Your task to perform on an android device: change notification settings in the gmail app Image 0: 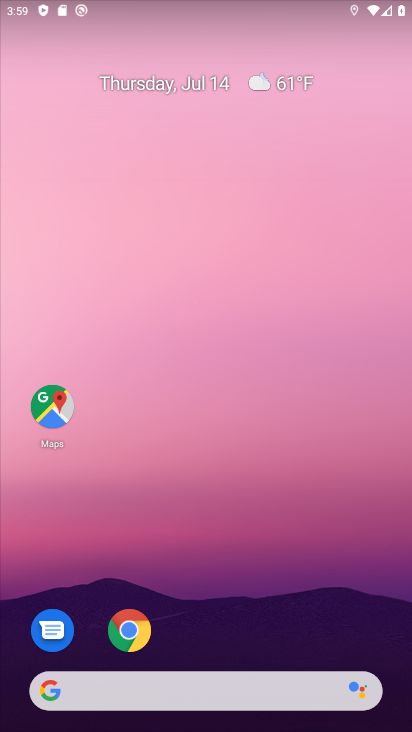
Step 0: drag from (294, 628) to (234, 129)
Your task to perform on an android device: change notification settings in the gmail app Image 1: 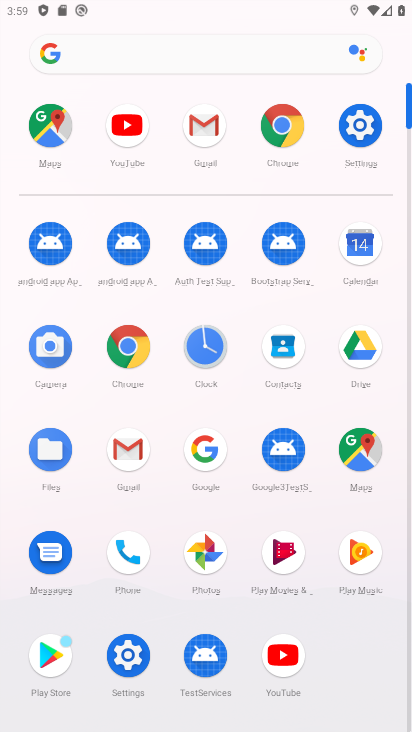
Step 1: click (209, 131)
Your task to perform on an android device: change notification settings in the gmail app Image 2: 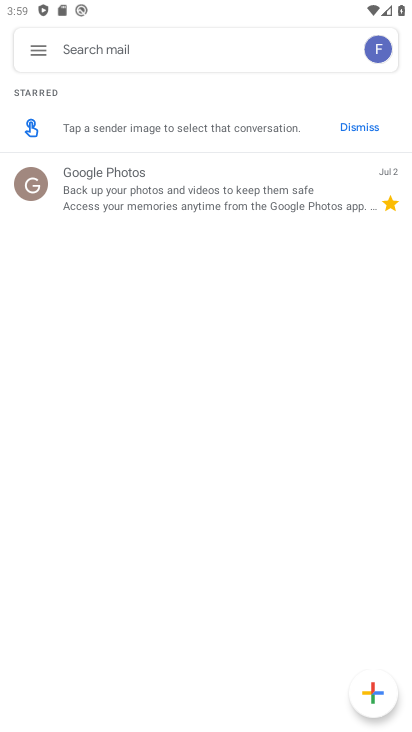
Step 2: click (36, 38)
Your task to perform on an android device: change notification settings in the gmail app Image 3: 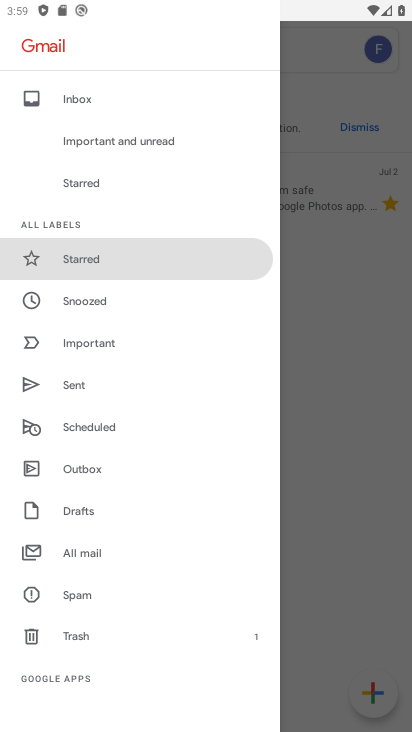
Step 3: drag from (140, 649) to (83, 233)
Your task to perform on an android device: change notification settings in the gmail app Image 4: 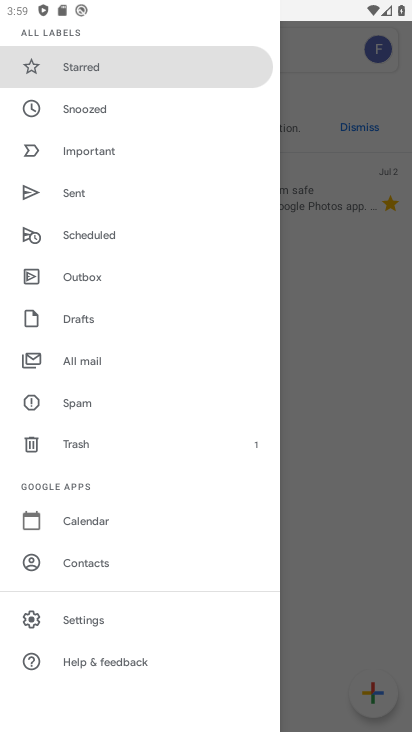
Step 4: click (97, 626)
Your task to perform on an android device: change notification settings in the gmail app Image 5: 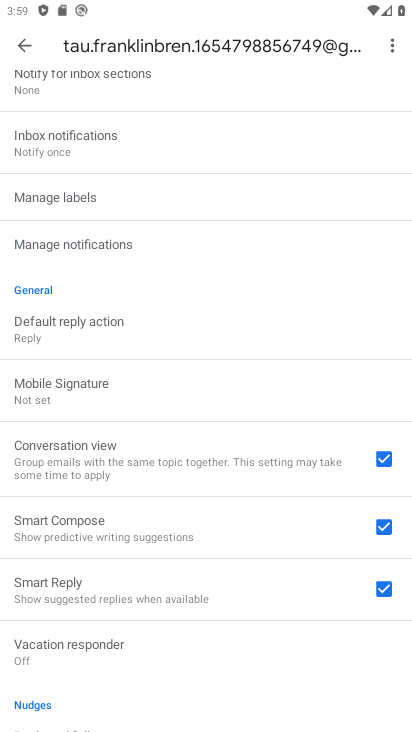
Step 5: click (168, 242)
Your task to perform on an android device: change notification settings in the gmail app Image 6: 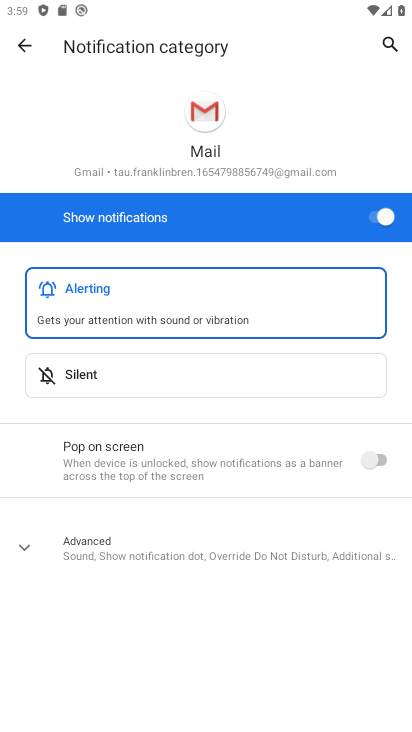
Step 6: click (376, 466)
Your task to perform on an android device: change notification settings in the gmail app Image 7: 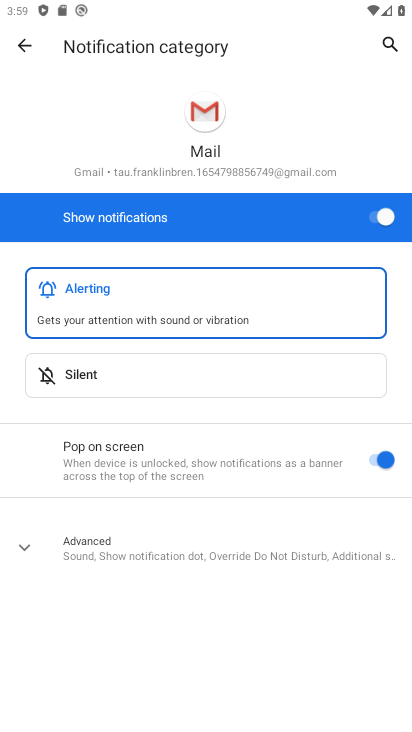
Step 7: click (337, 367)
Your task to perform on an android device: change notification settings in the gmail app Image 8: 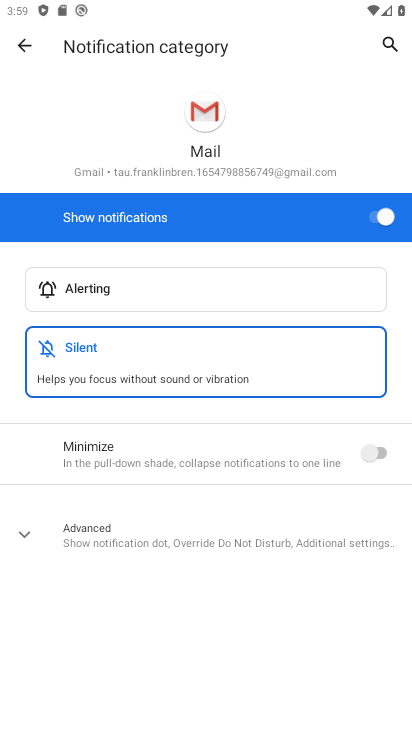
Step 8: click (388, 454)
Your task to perform on an android device: change notification settings in the gmail app Image 9: 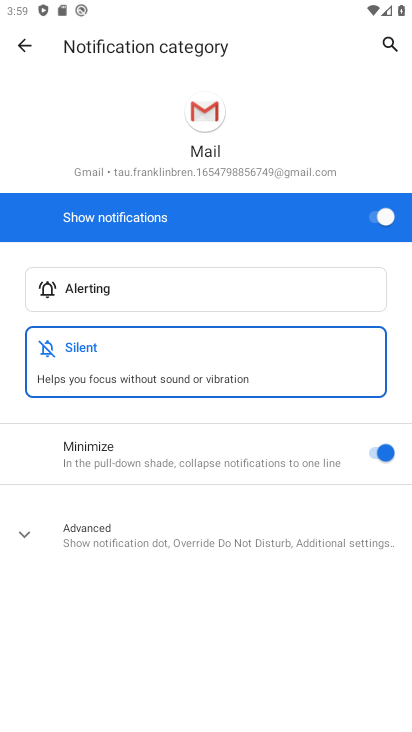
Step 9: task complete